Your task to perform on an android device: see sites visited before in the chrome app Image 0: 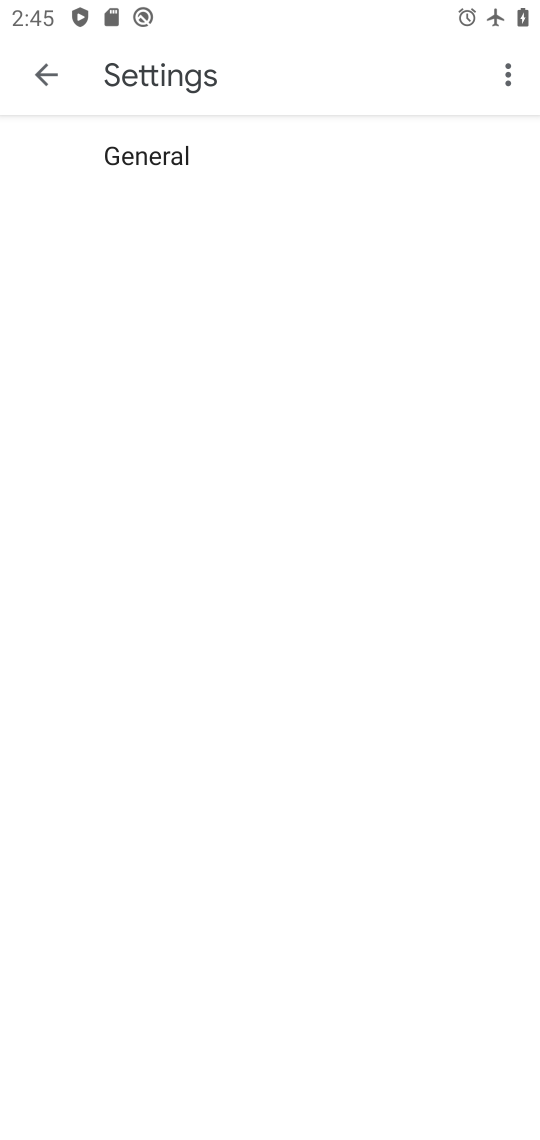
Step 0: press home button
Your task to perform on an android device: see sites visited before in the chrome app Image 1: 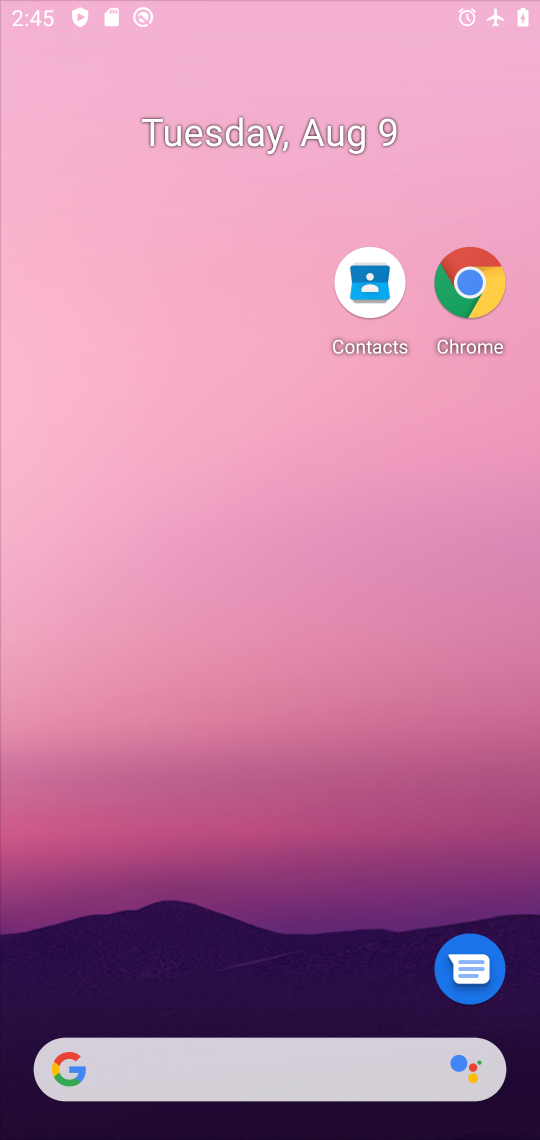
Step 1: drag from (263, 963) to (421, 36)
Your task to perform on an android device: see sites visited before in the chrome app Image 2: 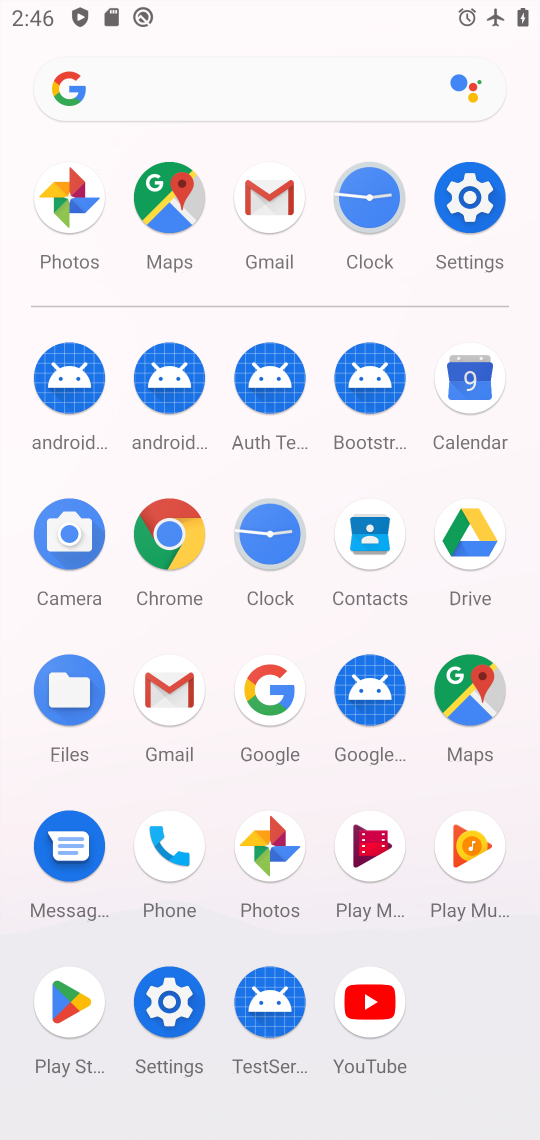
Step 2: click (152, 520)
Your task to perform on an android device: see sites visited before in the chrome app Image 3: 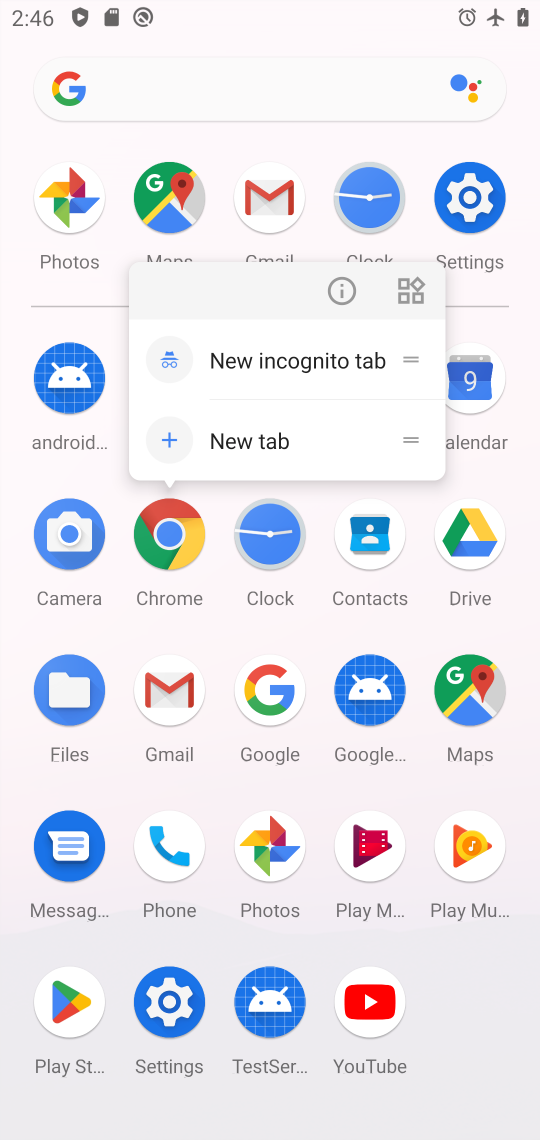
Step 3: click (329, 277)
Your task to perform on an android device: see sites visited before in the chrome app Image 4: 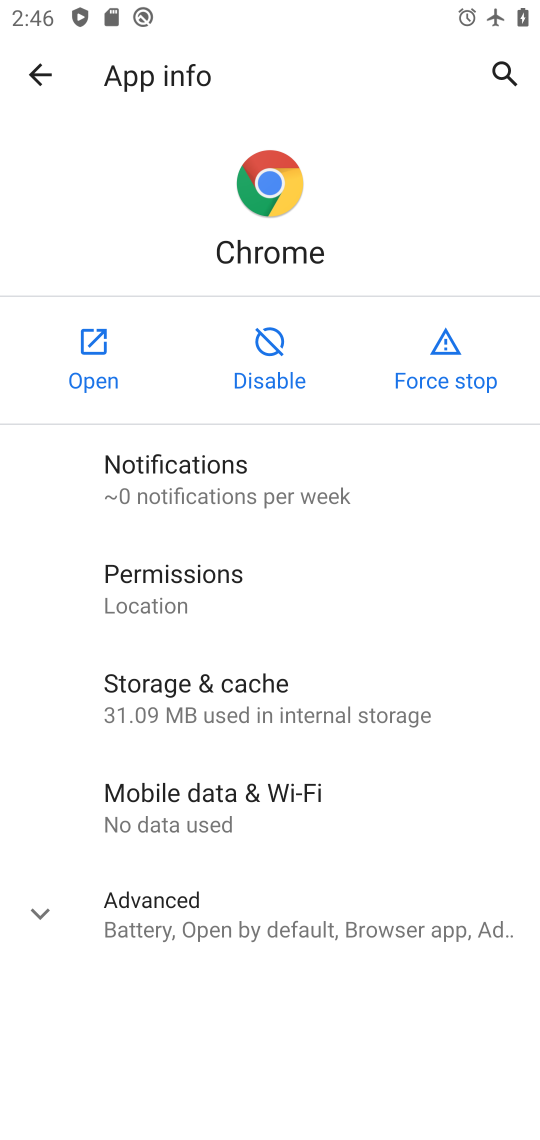
Step 4: click (95, 356)
Your task to perform on an android device: see sites visited before in the chrome app Image 5: 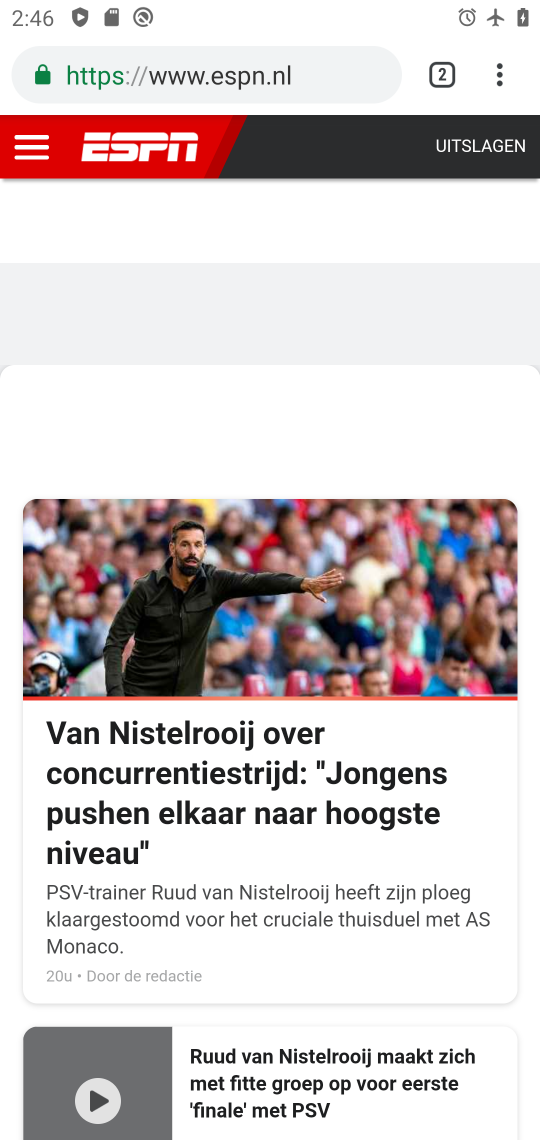
Step 5: task complete